Your task to perform on an android device: Open settings on Google Maps Image 0: 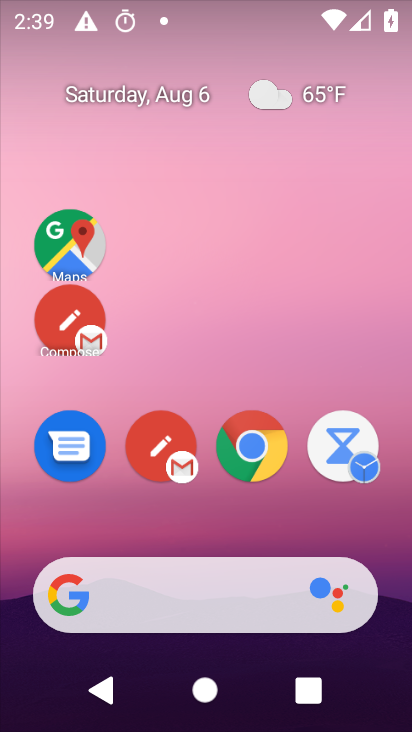
Step 0: drag from (239, 343) to (219, 224)
Your task to perform on an android device: Open settings on Google Maps Image 1: 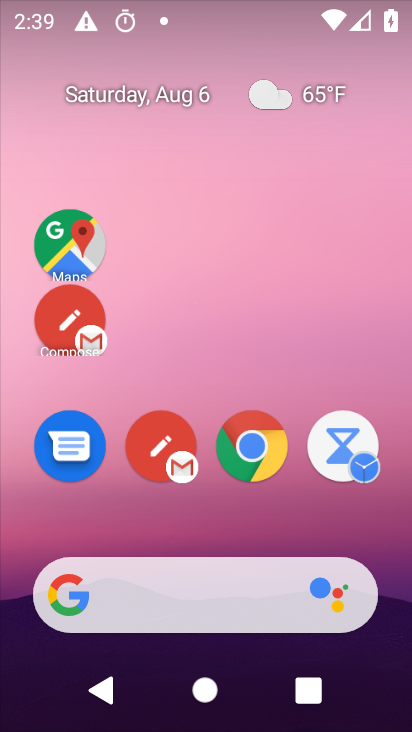
Step 1: drag from (213, 531) to (193, 166)
Your task to perform on an android device: Open settings on Google Maps Image 2: 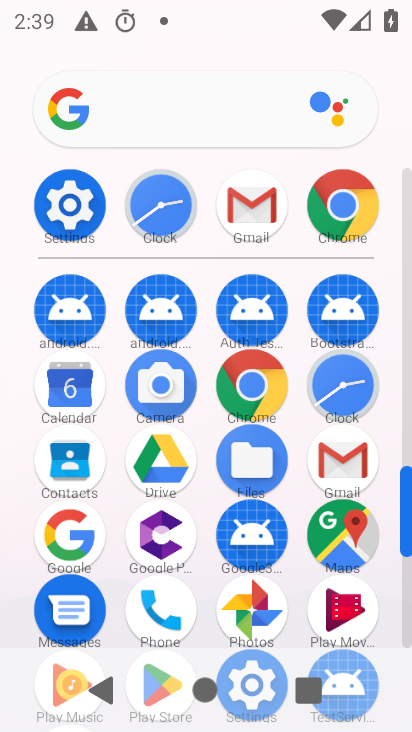
Step 2: drag from (227, 476) to (202, 252)
Your task to perform on an android device: Open settings on Google Maps Image 3: 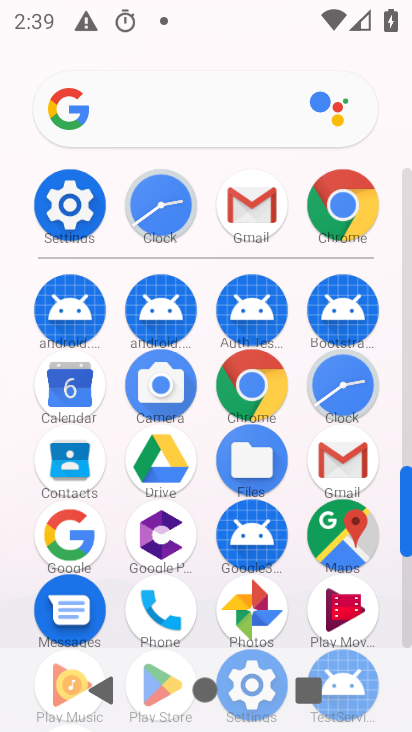
Step 3: click (348, 534)
Your task to perform on an android device: Open settings on Google Maps Image 4: 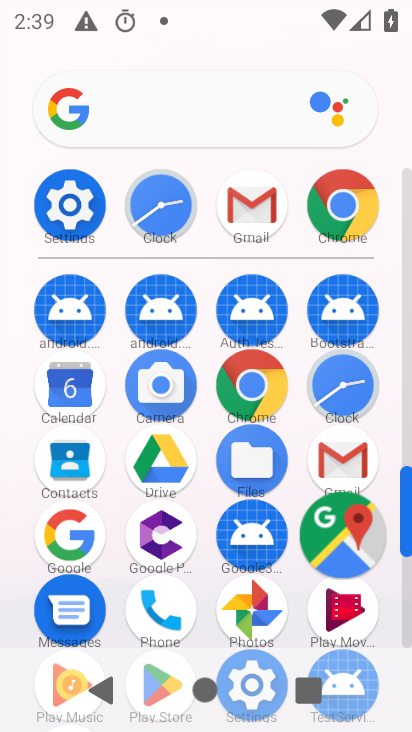
Step 4: click (348, 534)
Your task to perform on an android device: Open settings on Google Maps Image 5: 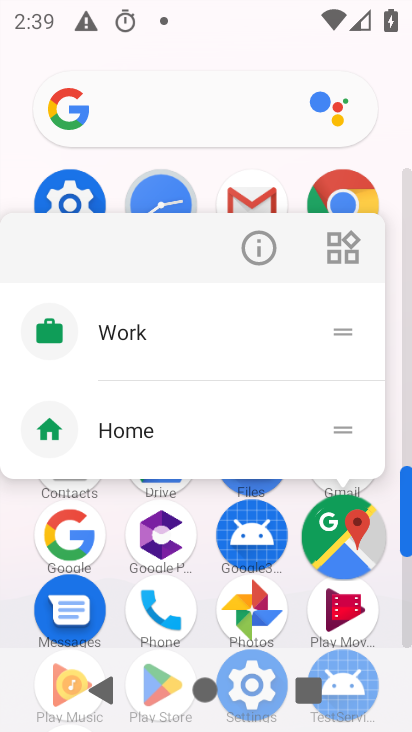
Step 5: click (144, 335)
Your task to perform on an android device: Open settings on Google Maps Image 6: 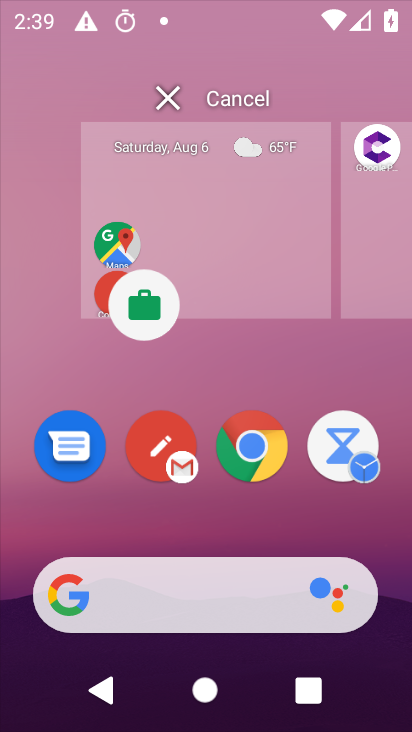
Step 6: click (144, 335)
Your task to perform on an android device: Open settings on Google Maps Image 7: 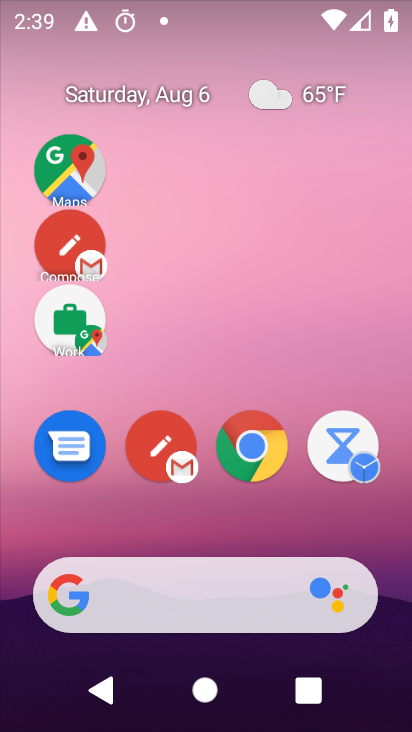
Step 7: click (59, 173)
Your task to perform on an android device: Open settings on Google Maps Image 8: 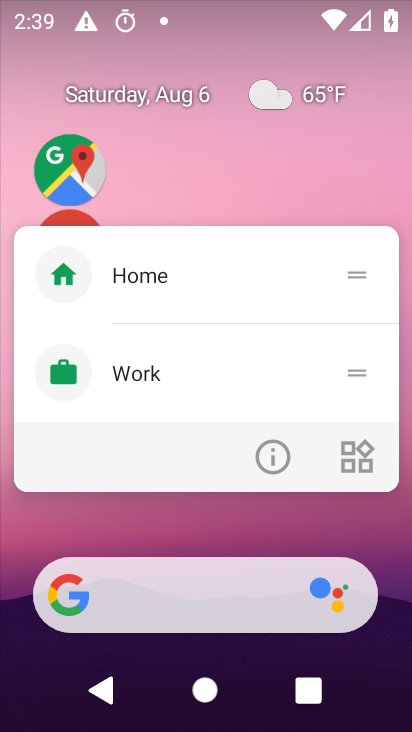
Step 8: click (143, 373)
Your task to perform on an android device: Open settings on Google Maps Image 9: 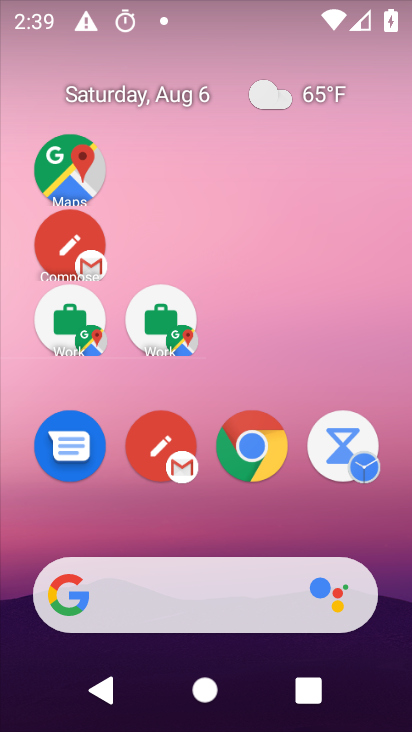
Step 9: drag from (260, 321) to (227, 176)
Your task to perform on an android device: Open settings on Google Maps Image 10: 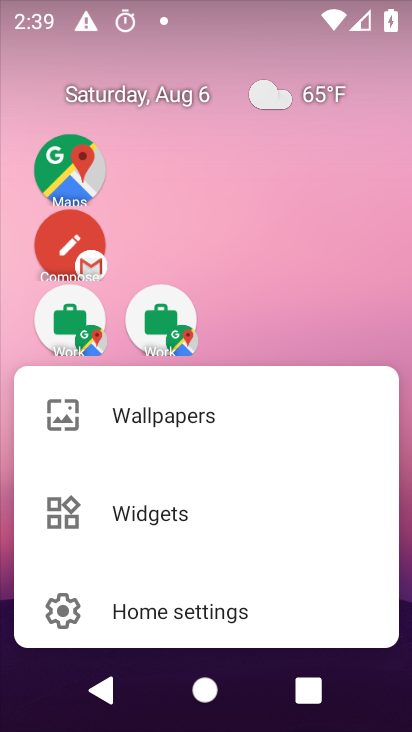
Step 10: click (311, 255)
Your task to perform on an android device: Open settings on Google Maps Image 11: 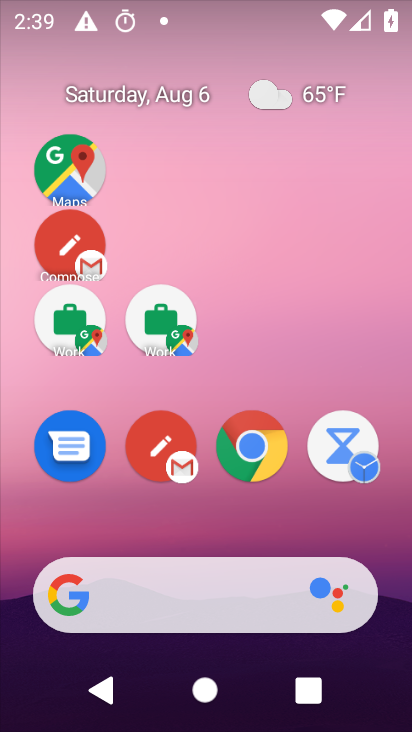
Step 11: click (297, 264)
Your task to perform on an android device: Open settings on Google Maps Image 12: 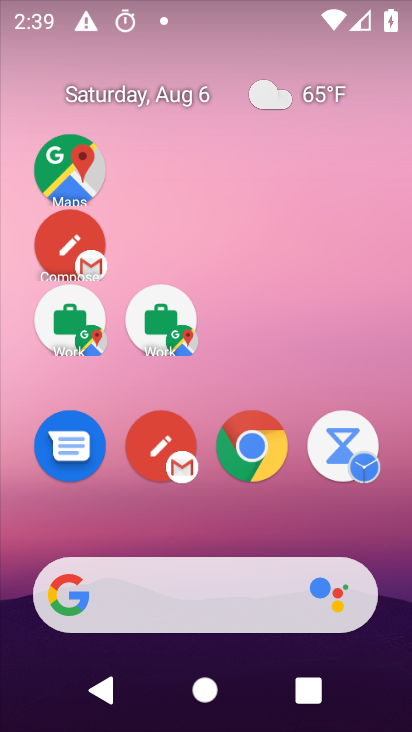
Step 12: click (299, 258)
Your task to perform on an android device: Open settings on Google Maps Image 13: 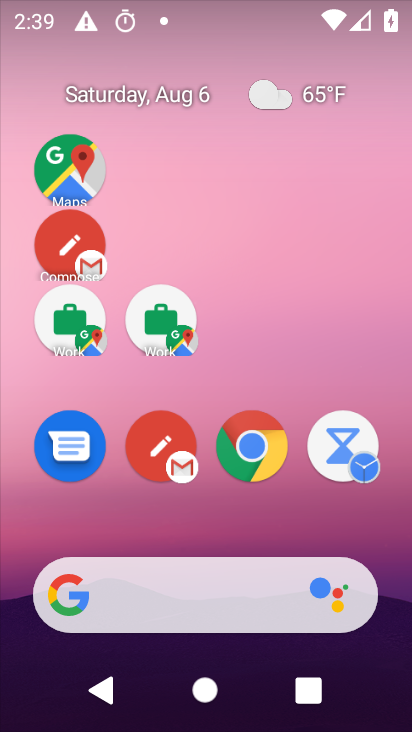
Step 13: drag from (253, 468) to (223, 70)
Your task to perform on an android device: Open settings on Google Maps Image 14: 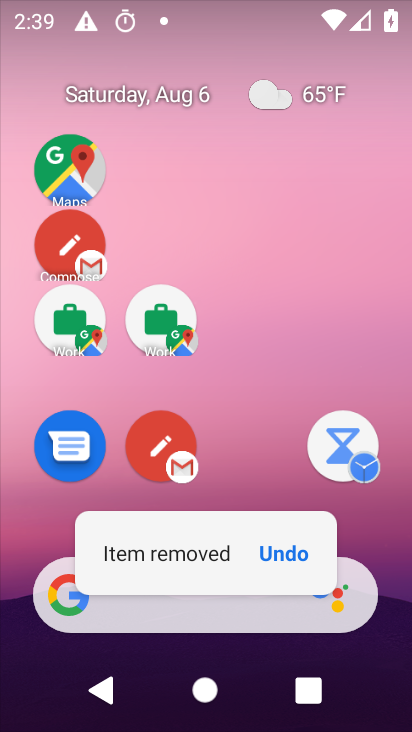
Step 14: drag from (305, 434) to (275, 151)
Your task to perform on an android device: Open settings on Google Maps Image 15: 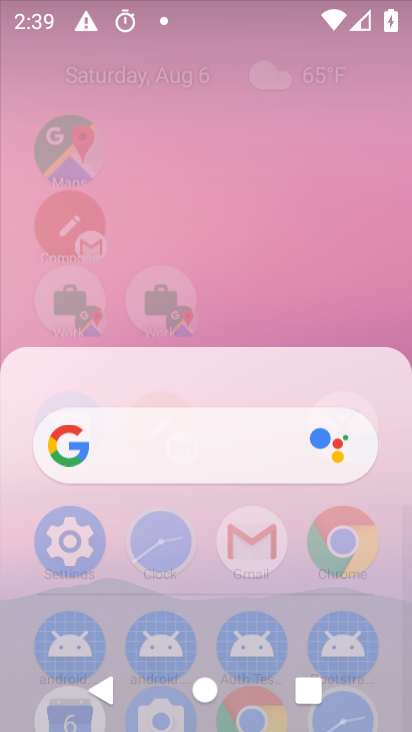
Step 15: click (315, 327)
Your task to perform on an android device: Open settings on Google Maps Image 16: 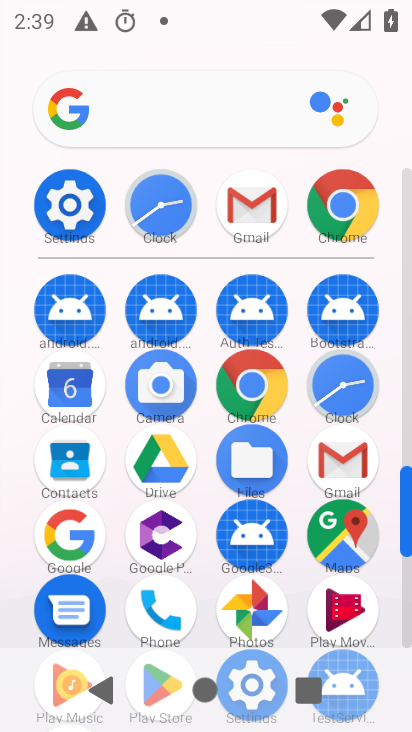
Step 16: click (332, 543)
Your task to perform on an android device: Open settings on Google Maps Image 17: 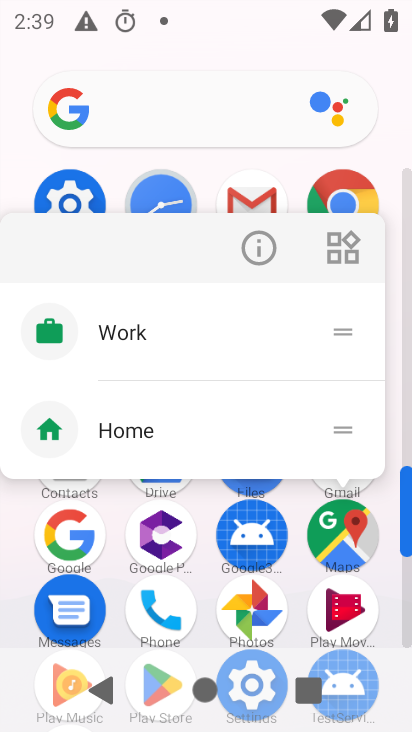
Step 17: drag from (116, 357) to (238, 333)
Your task to perform on an android device: Open settings on Google Maps Image 18: 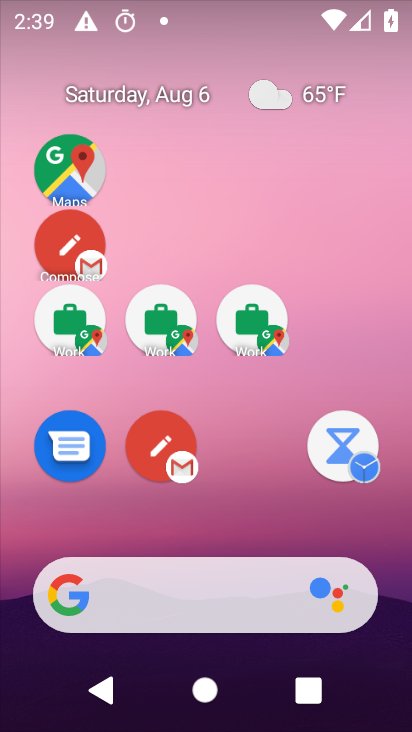
Step 18: click (167, 89)
Your task to perform on an android device: Open settings on Google Maps Image 19: 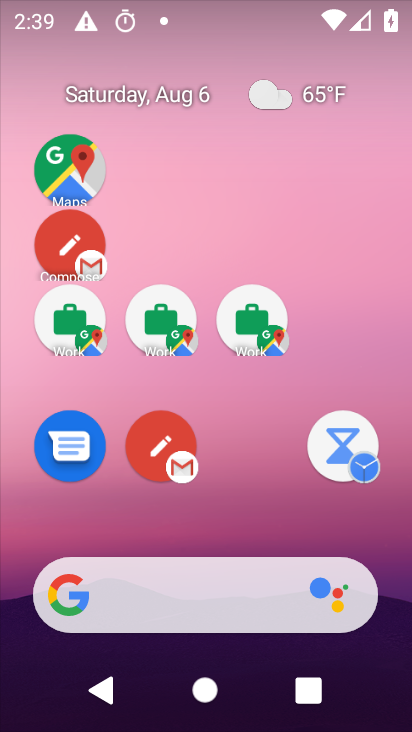
Step 19: click (171, 104)
Your task to perform on an android device: Open settings on Google Maps Image 20: 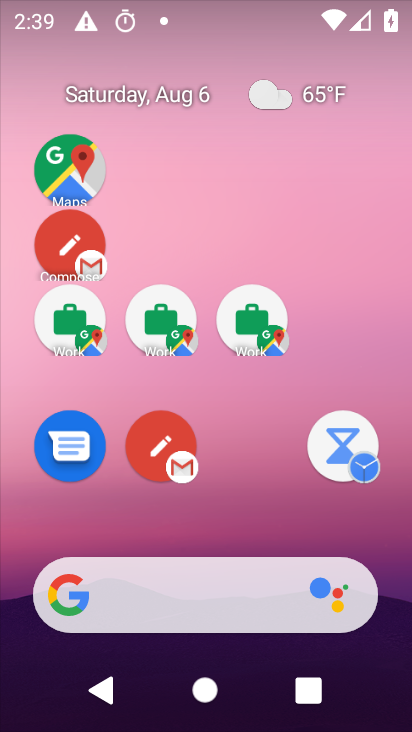
Step 20: click (174, 103)
Your task to perform on an android device: Open settings on Google Maps Image 21: 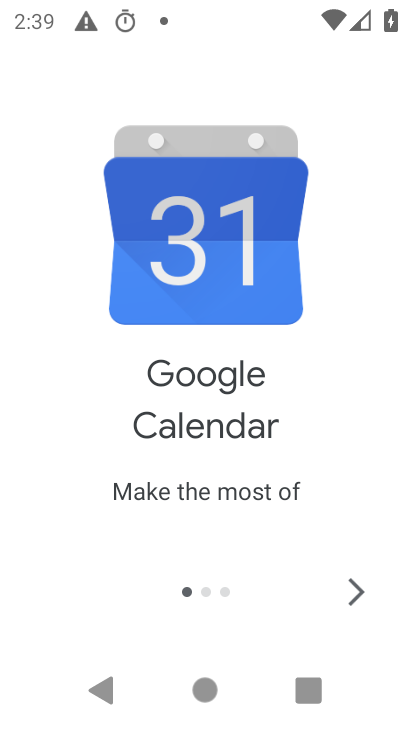
Step 21: press back button
Your task to perform on an android device: Open settings on Google Maps Image 22: 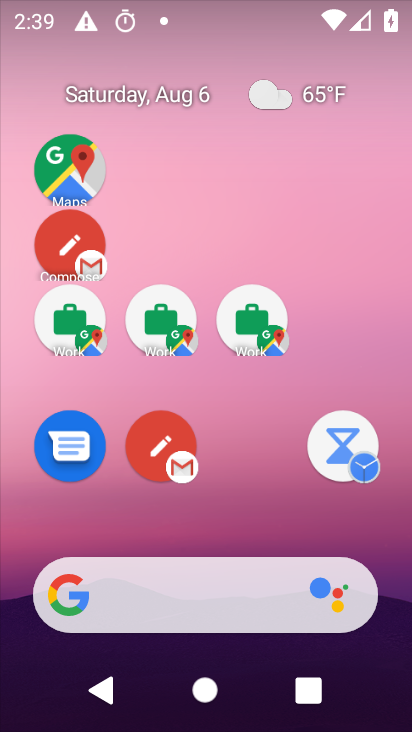
Step 22: press home button
Your task to perform on an android device: Open settings on Google Maps Image 23: 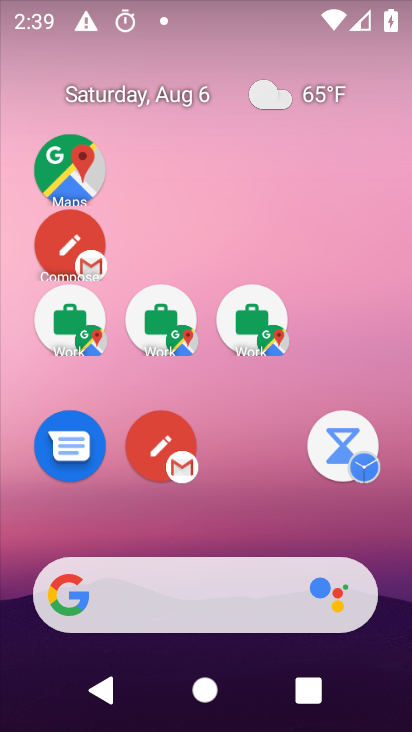
Step 23: drag from (276, 601) to (197, 159)
Your task to perform on an android device: Open settings on Google Maps Image 24: 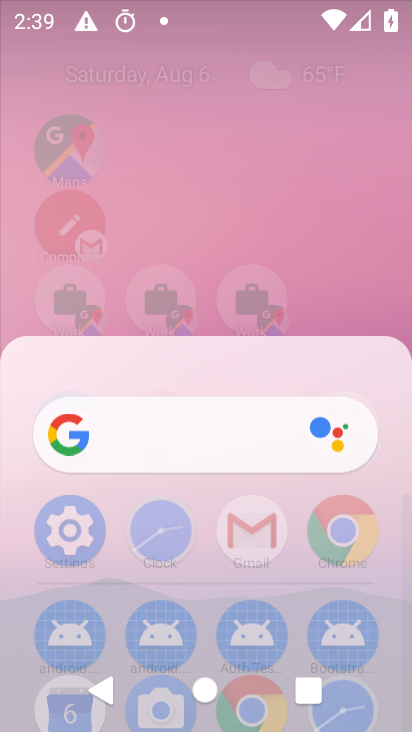
Step 24: drag from (251, 467) to (246, 218)
Your task to perform on an android device: Open settings on Google Maps Image 25: 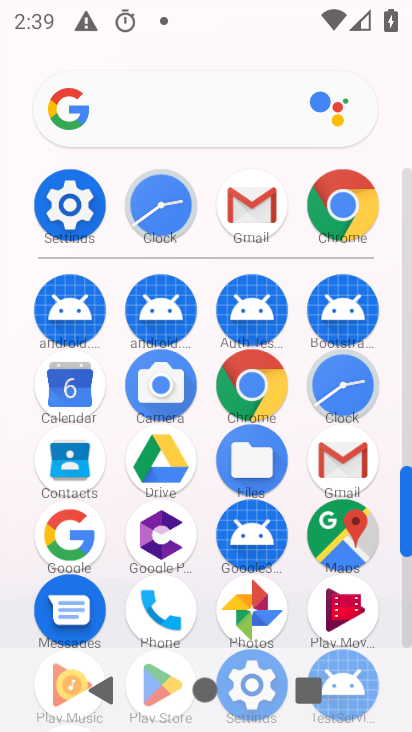
Step 25: click (347, 537)
Your task to perform on an android device: Open settings on Google Maps Image 26: 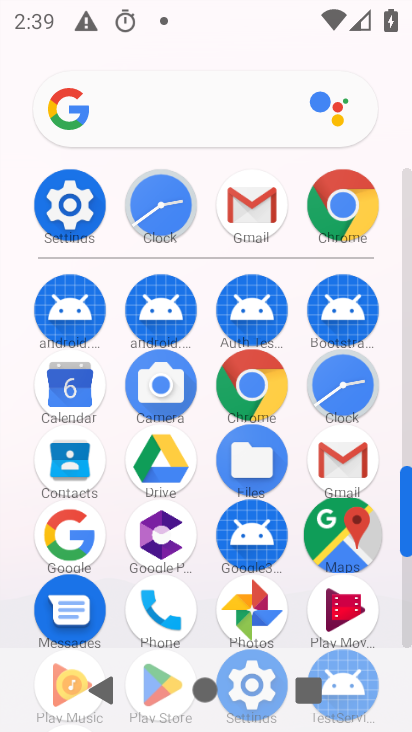
Step 26: click (347, 537)
Your task to perform on an android device: Open settings on Google Maps Image 27: 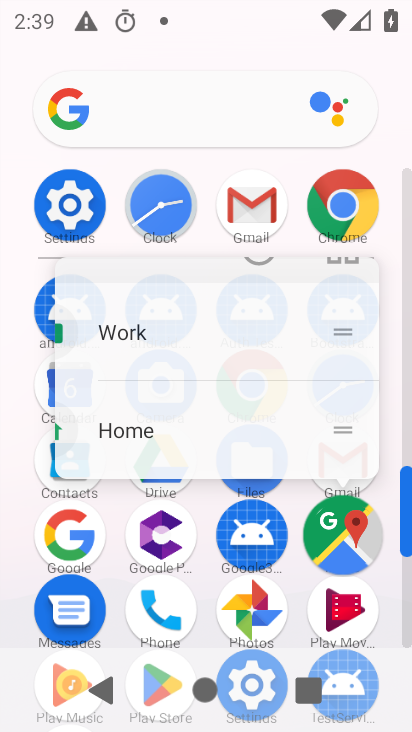
Step 27: click (347, 537)
Your task to perform on an android device: Open settings on Google Maps Image 28: 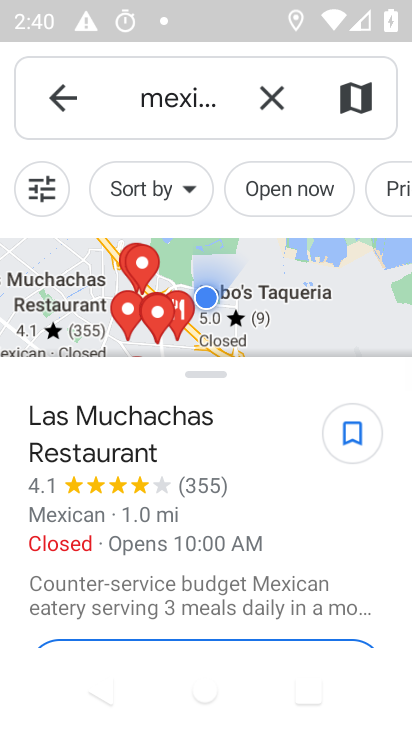
Step 28: click (68, 95)
Your task to perform on an android device: Open settings on Google Maps Image 29: 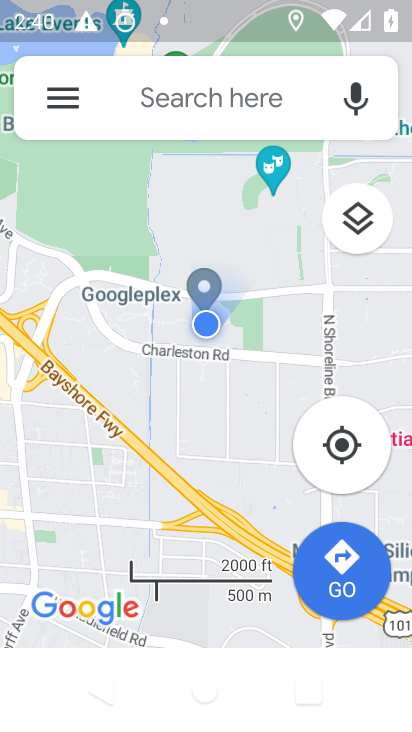
Step 29: click (72, 99)
Your task to perform on an android device: Open settings on Google Maps Image 30: 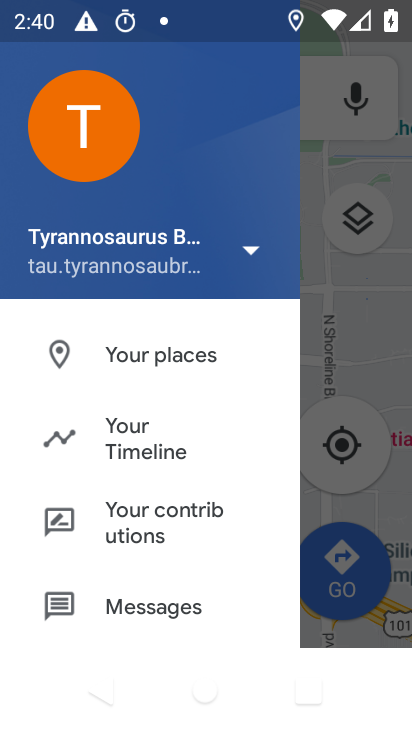
Step 30: drag from (176, 529) to (134, 227)
Your task to perform on an android device: Open settings on Google Maps Image 31: 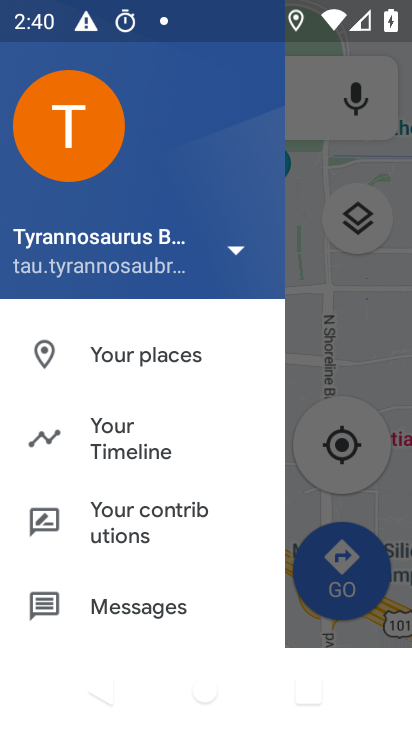
Step 31: drag from (129, 455) to (129, 230)
Your task to perform on an android device: Open settings on Google Maps Image 32: 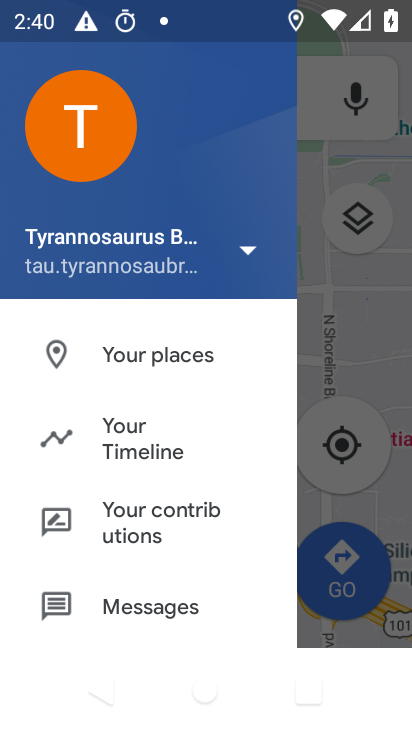
Step 32: drag from (118, 473) to (108, 252)
Your task to perform on an android device: Open settings on Google Maps Image 33: 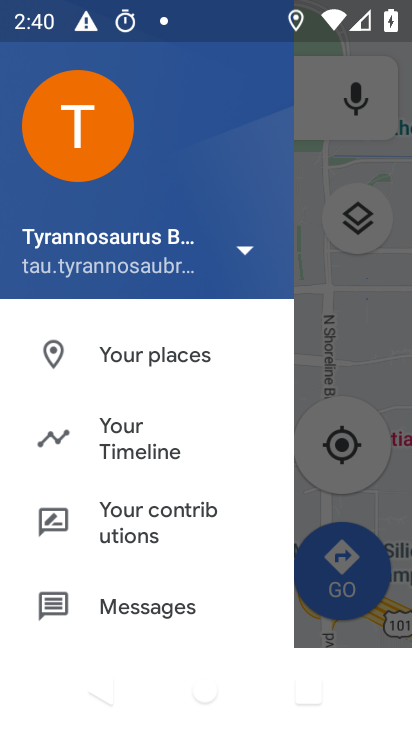
Step 33: drag from (125, 489) to (120, 247)
Your task to perform on an android device: Open settings on Google Maps Image 34: 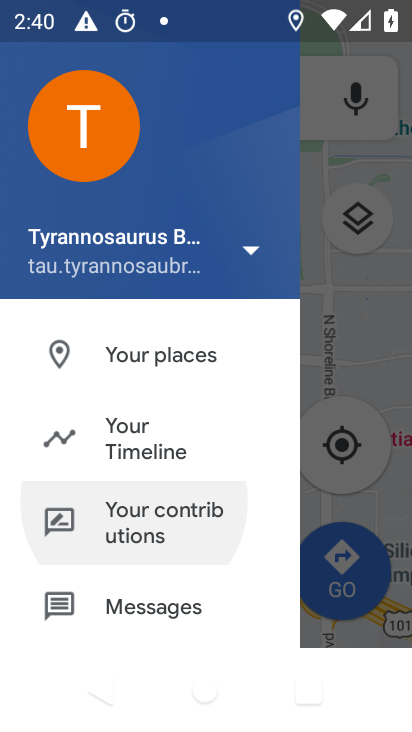
Step 34: drag from (170, 506) to (216, 256)
Your task to perform on an android device: Open settings on Google Maps Image 35: 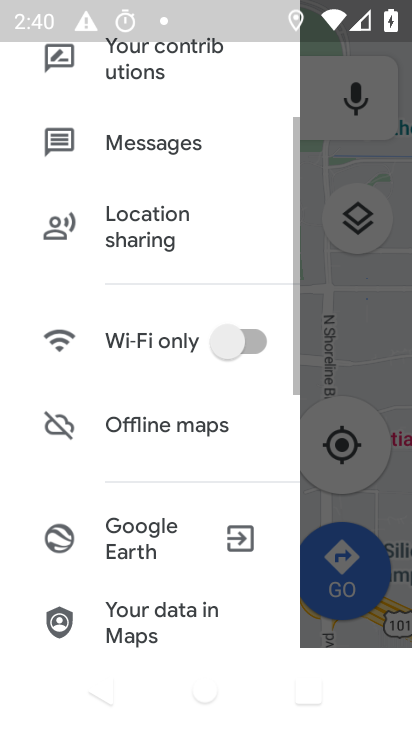
Step 35: drag from (237, 481) to (216, 152)
Your task to perform on an android device: Open settings on Google Maps Image 36: 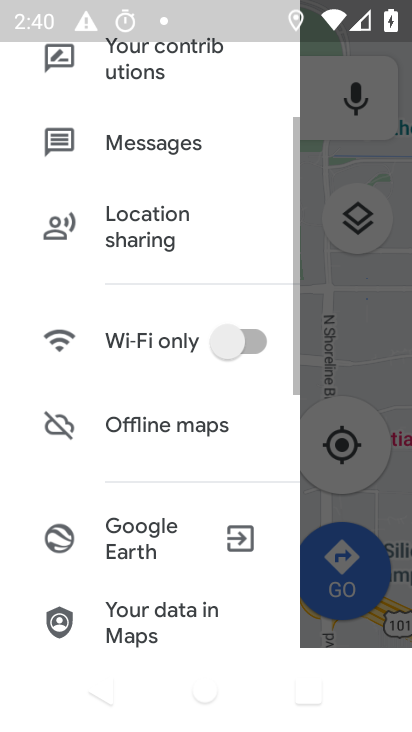
Step 36: drag from (198, 570) to (173, 205)
Your task to perform on an android device: Open settings on Google Maps Image 37: 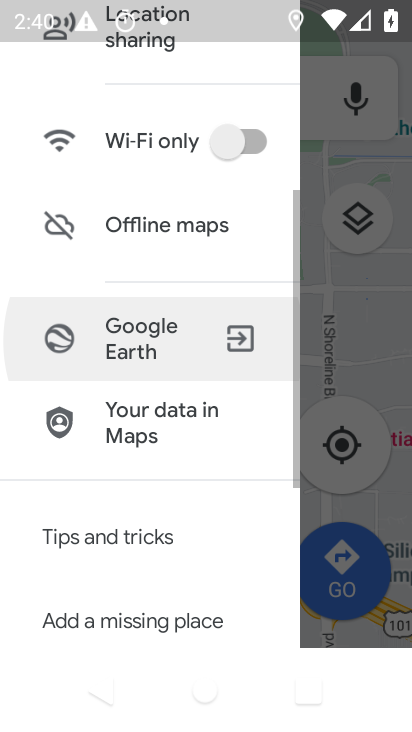
Step 37: drag from (177, 479) to (177, 164)
Your task to perform on an android device: Open settings on Google Maps Image 38: 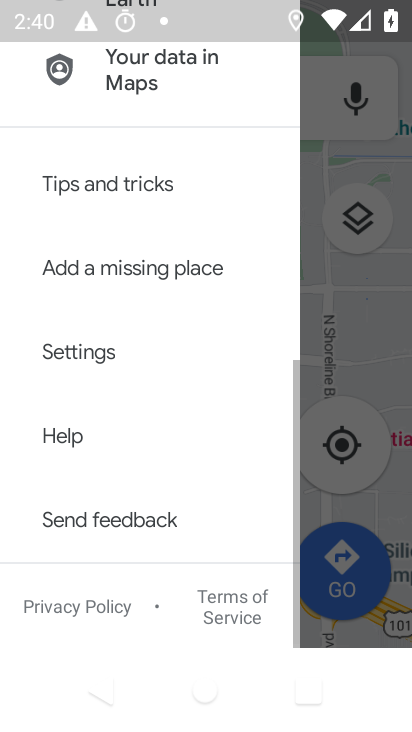
Step 38: drag from (170, 513) to (166, 222)
Your task to perform on an android device: Open settings on Google Maps Image 39: 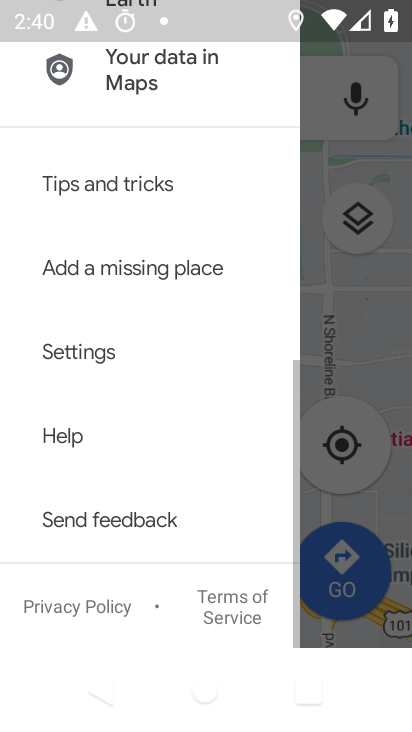
Step 39: click (78, 349)
Your task to perform on an android device: Open settings on Google Maps Image 40: 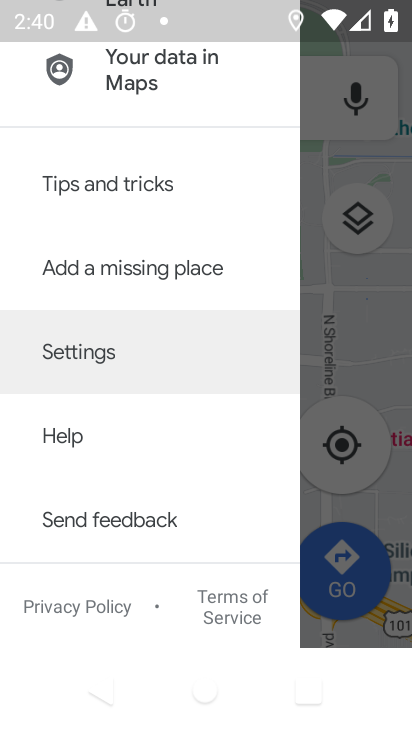
Step 40: click (78, 349)
Your task to perform on an android device: Open settings on Google Maps Image 41: 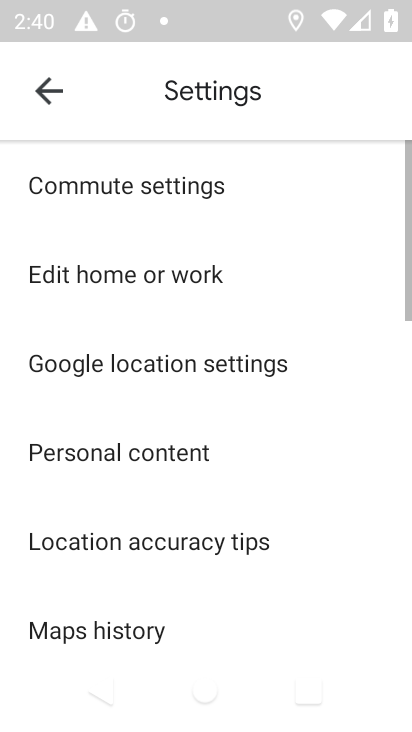
Step 41: click (78, 349)
Your task to perform on an android device: Open settings on Google Maps Image 42: 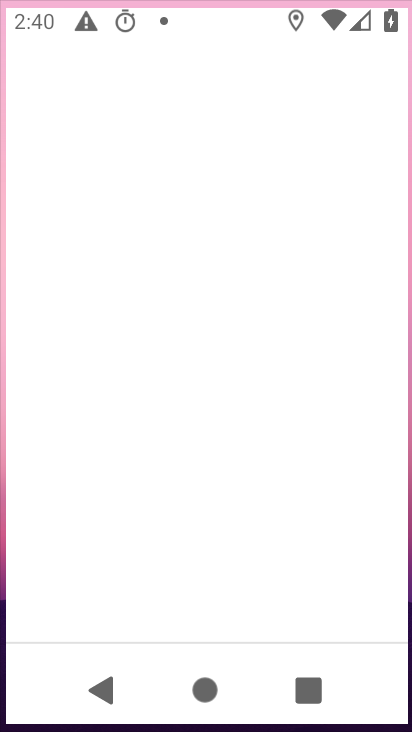
Step 42: task complete